Your task to perform on an android device: open device folders in google photos Image 0: 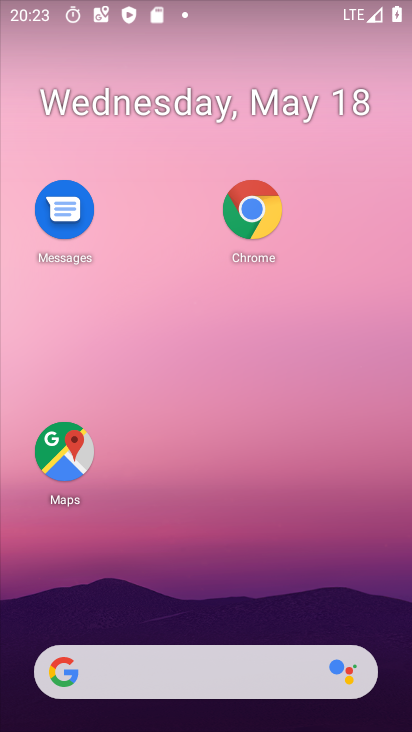
Step 0: drag from (189, 597) to (167, 192)
Your task to perform on an android device: open device folders in google photos Image 1: 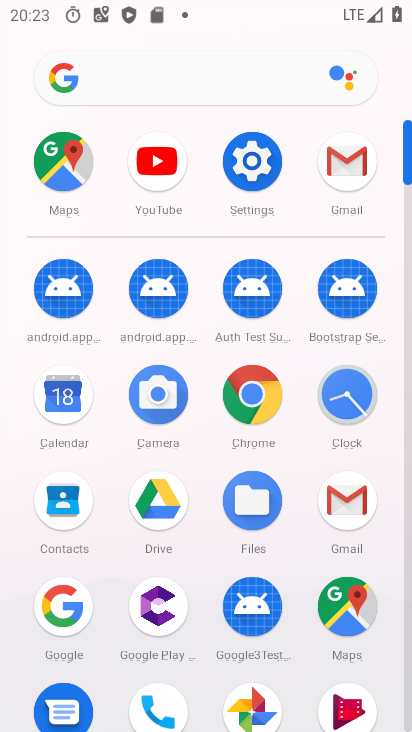
Step 1: click (239, 692)
Your task to perform on an android device: open device folders in google photos Image 2: 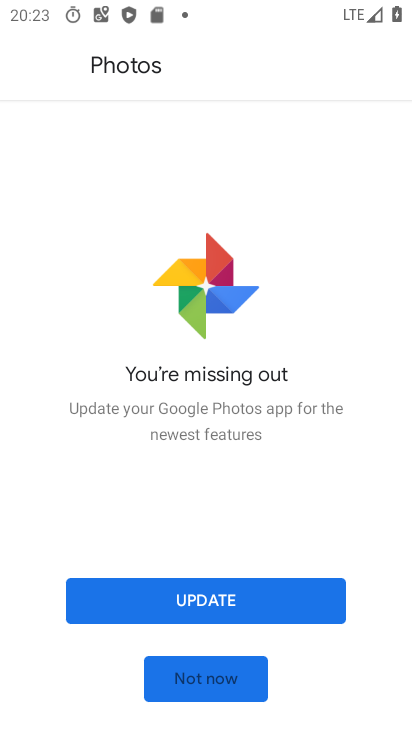
Step 2: click (197, 675)
Your task to perform on an android device: open device folders in google photos Image 3: 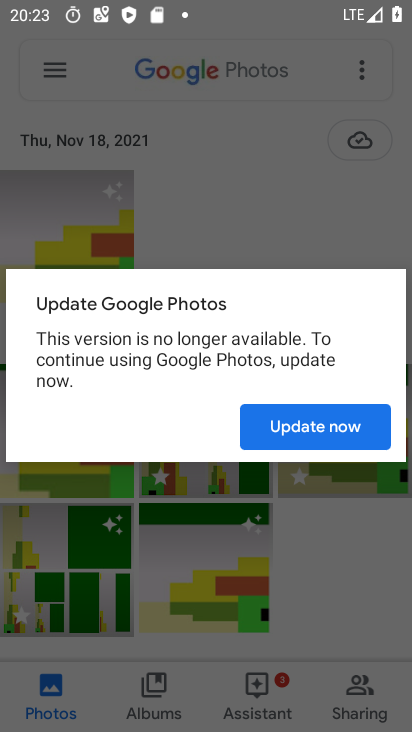
Step 3: click (358, 423)
Your task to perform on an android device: open device folders in google photos Image 4: 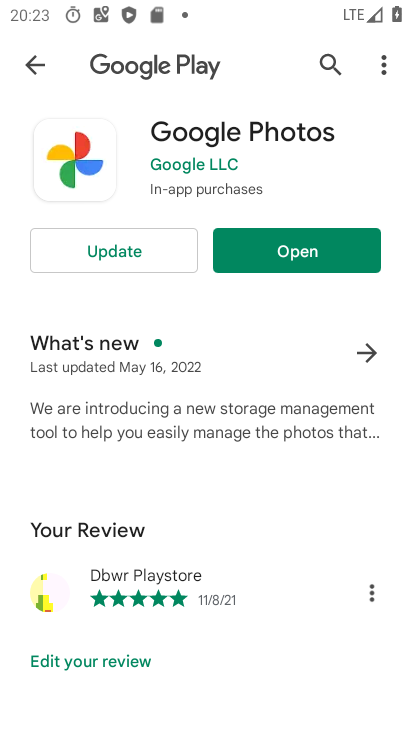
Step 4: click (286, 258)
Your task to perform on an android device: open device folders in google photos Image 5: 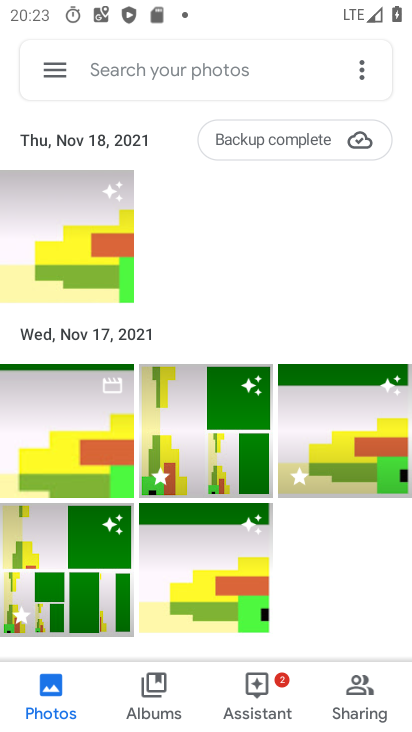
Step 5: click (58, 54)
Your task to perform on an android device: open device folders in google photos Image 6: 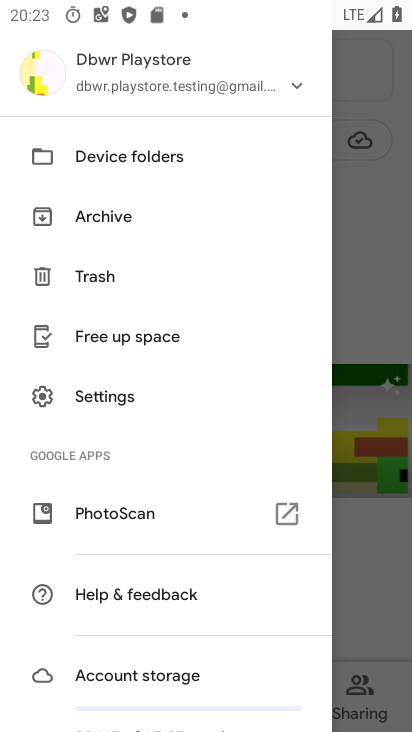
Step 6: click (83, 149)
Your task to perform on an android device: open device folders in google photos Image 7: 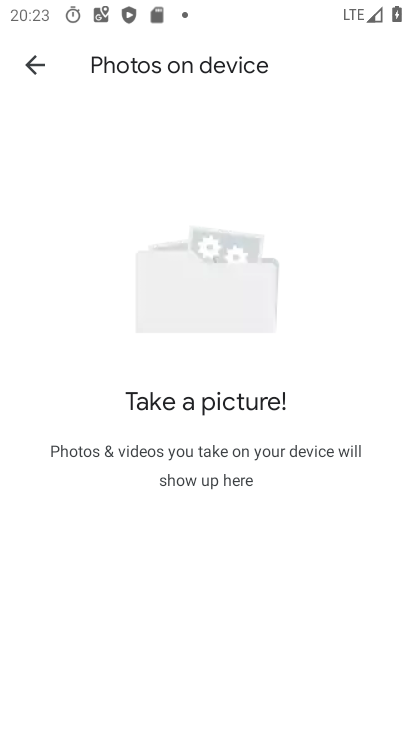
Step 7: task complete